Your task to perform on an android device: turn pop-ups off in chrome Image 0: 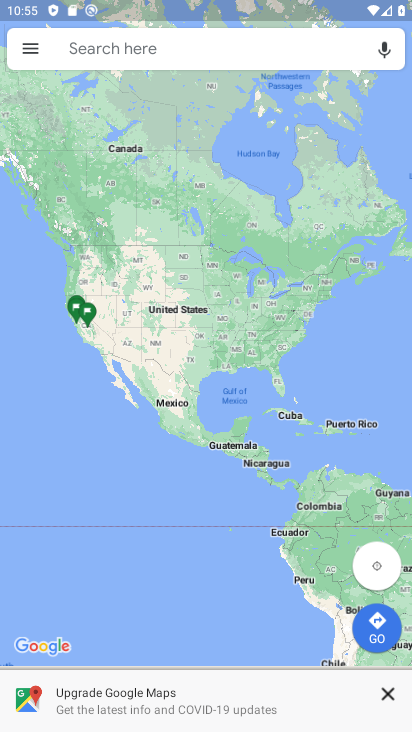
Step 0: drag from (245, 619) to (196, 150)
Your task to perform on an android device: turn pop-ups off in chrome Image 1: 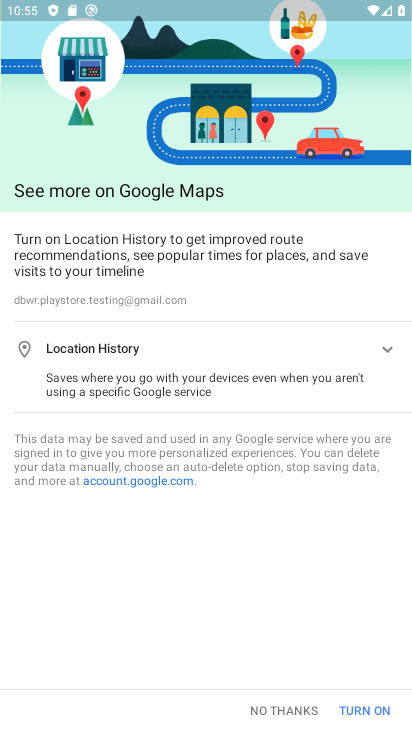
Step 1: press home button
Your task to perform on an android device: turn pop-ups off in chrome Image 2: 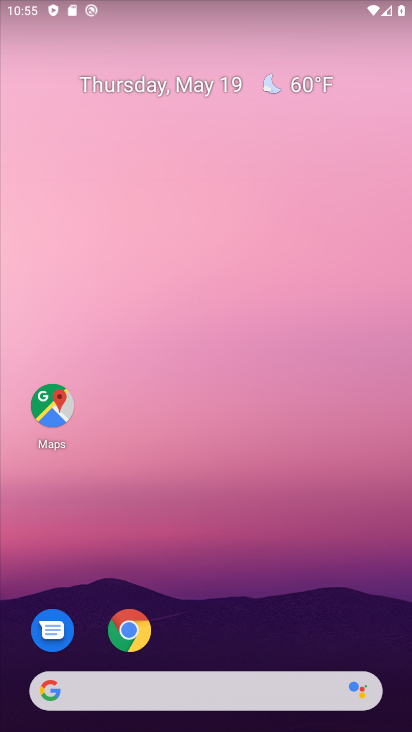
Step 2: drag from (256, 628) to (221, 213)
Your task to perform on an android device: turn pop-ups off in chrome Image 3: 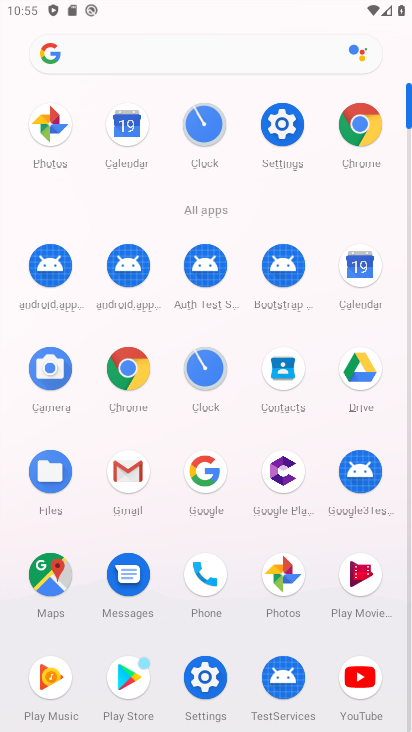
Step 3: click (359, 133)
Your task to perform on an android device: turn pop-ups off in chrome Image 4: 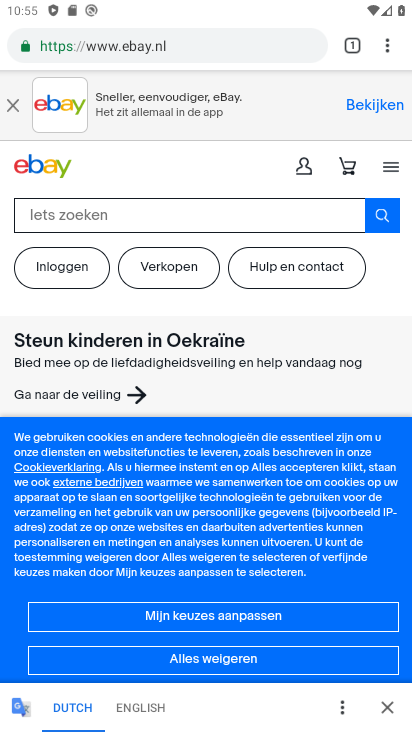
Step 4: click (382, 60)
Your task to perform on an android device: turn pop-ups off in chrome Image 5: 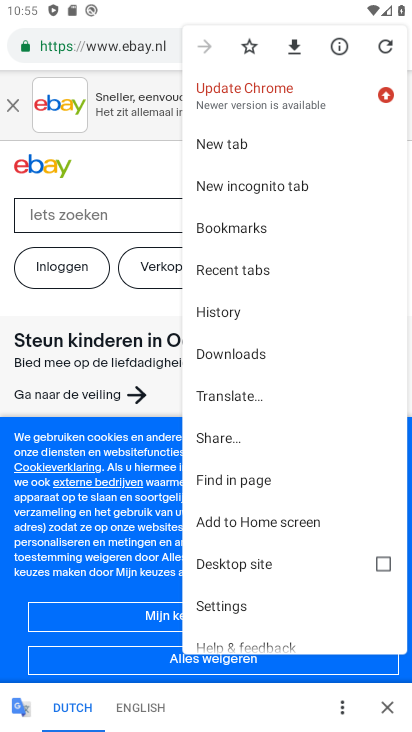
Step 5: click (256, 613)
Your task to perform on an android device: turn pop-ups off in chrome Image 6: 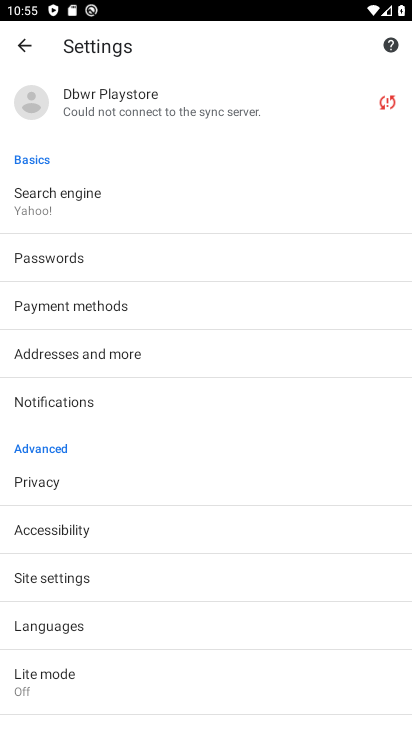
Step 6: click (184, 585)
Your task to perform on an android device: turn pop-ups off in chrome Image 7: 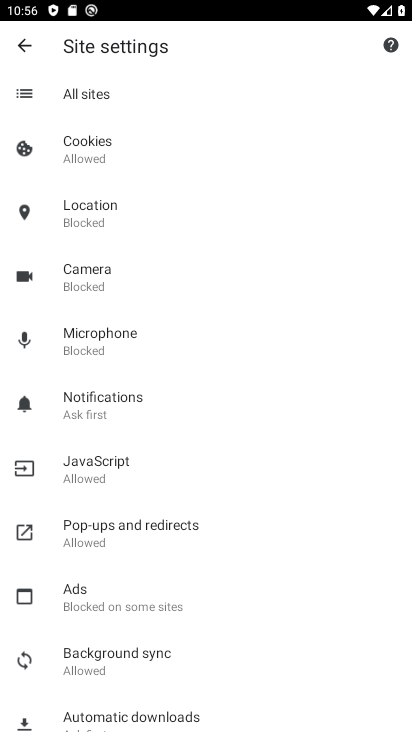
Step 7: click (185, 535)
Your task to perform on an android device: turn pop-ups off in chrome Image 8: 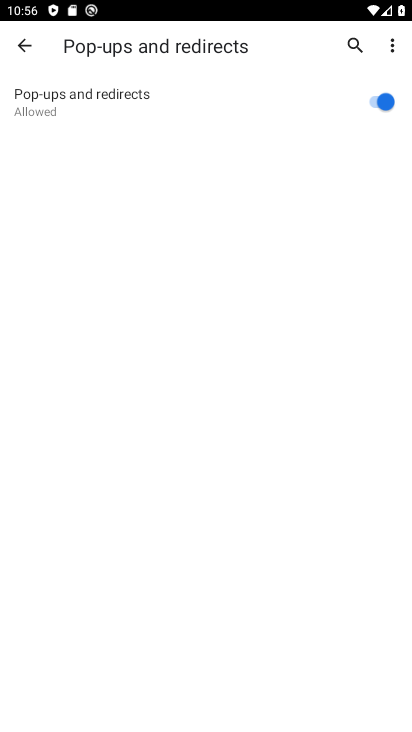
Step 8: click (374, 95)
Your task to perform on an android device: turn pop-ups off in chrome Image 9: 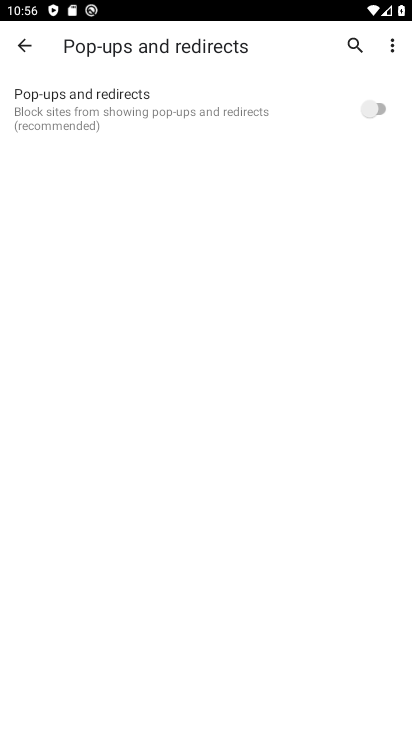
Step 9: task complete